Your task to perform on an android device: visit the assistant section in the google photos Image 0: 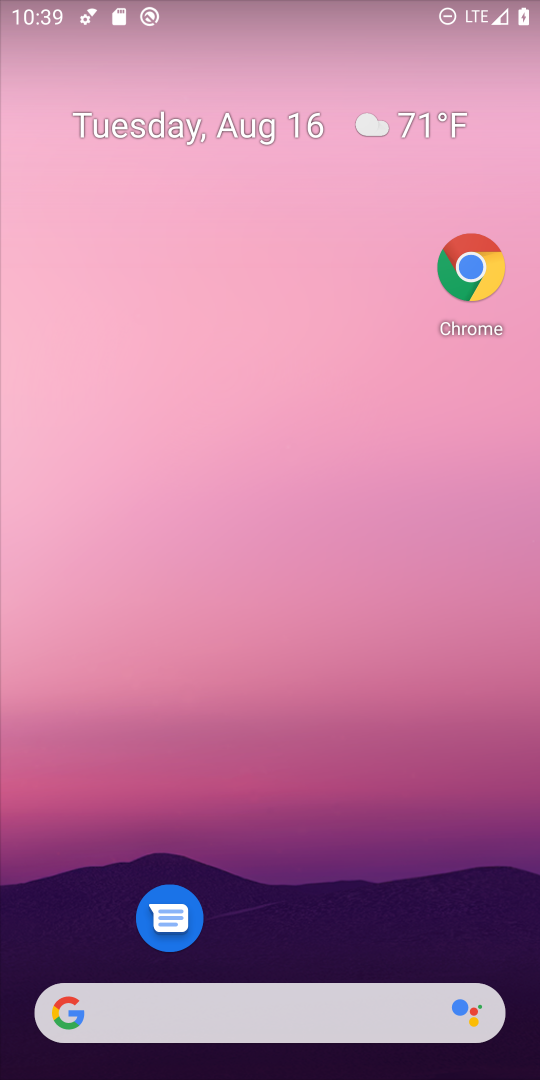
Step 0: drag from (287, 1049) to (321, 463)
Your task to perform on an android device: visit the assistant section in the google photos Image 1: 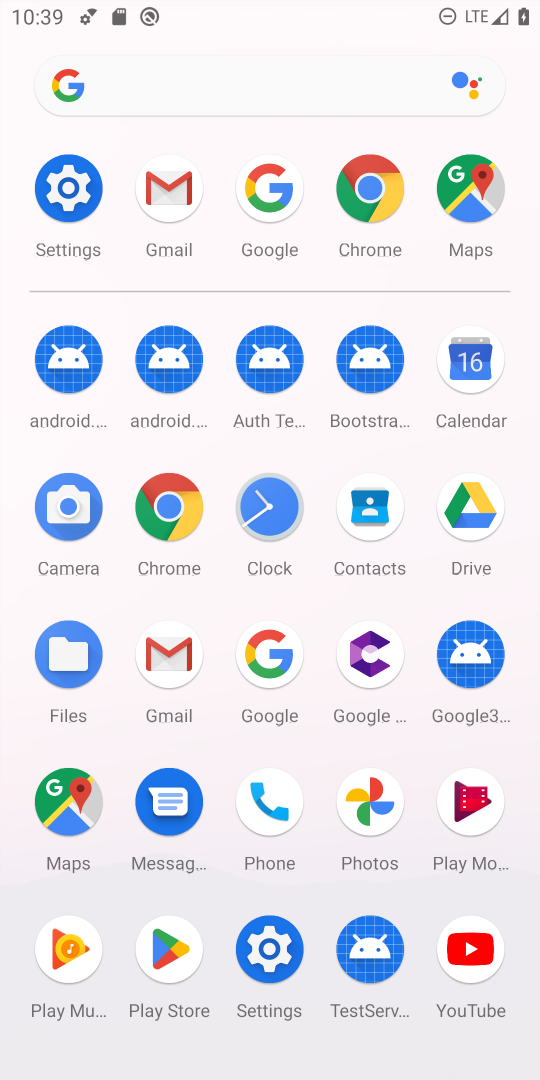
Step 1: click (372, 818)
Your task to perform on an android device: visit the assistant section in the google photos Image 2: 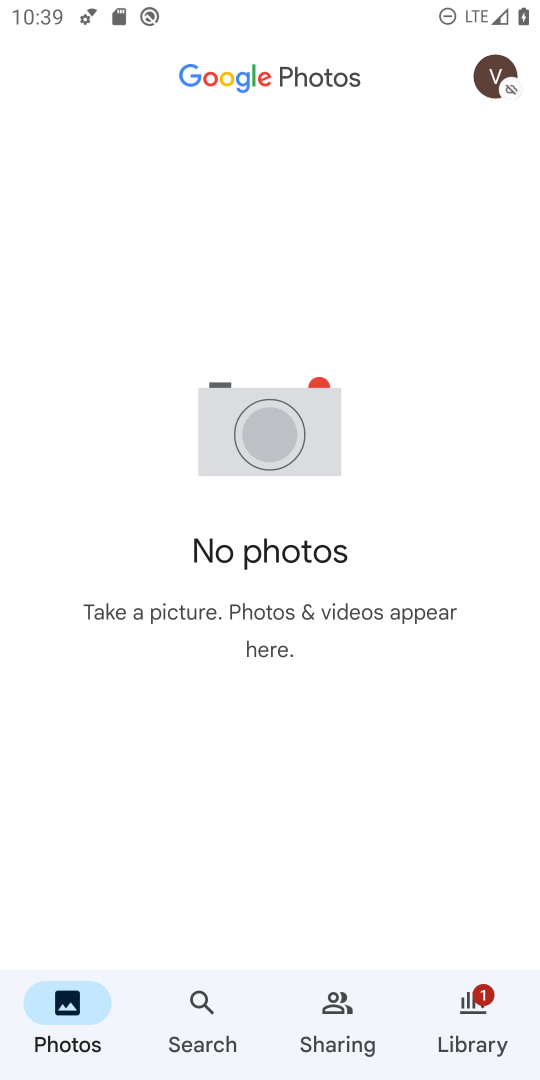
Step 2: click (495, 88)
Your task to perform on an android device: visit the assistant section in the google photos Image 3: 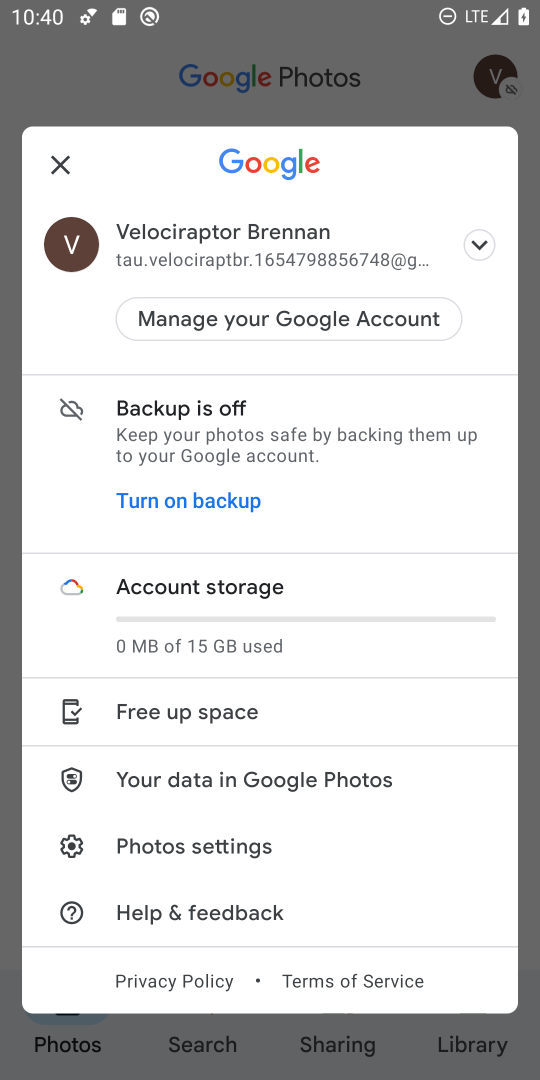
Step 3: click (56, 166)
Your task to perform on an android device: visit the assistant section in the google photos Image 4: 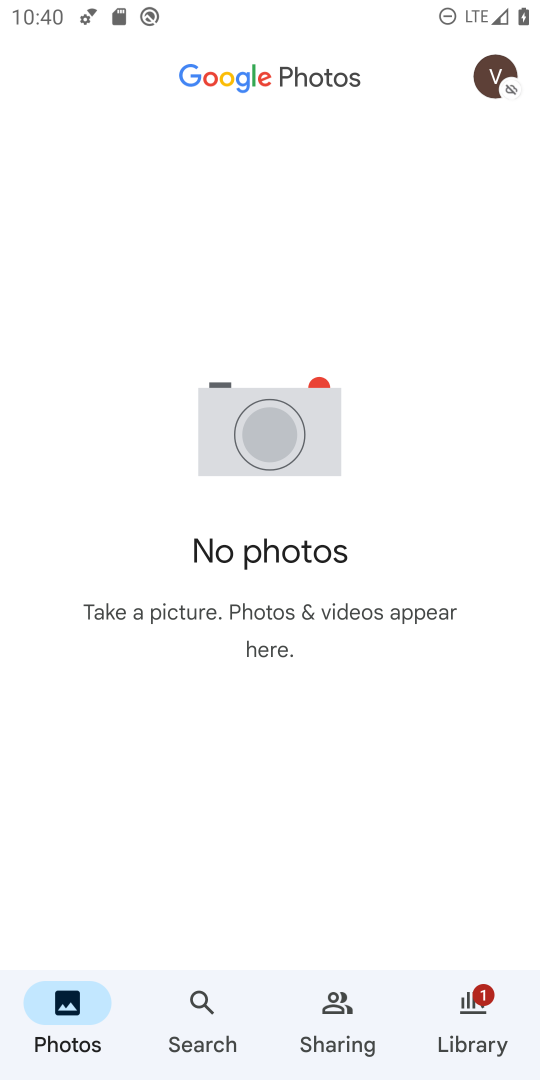
Step 4: task complete